Your task to perform on an android device: Turn on the flashlight Image 0: 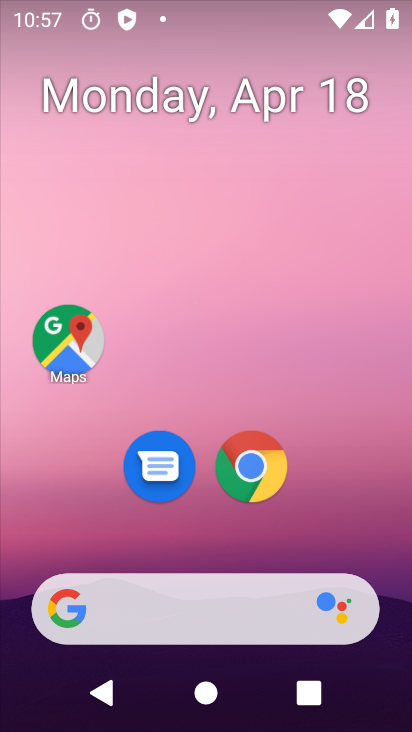
Step 0: drag from (296, 588) to (361, 92)
Your task to perform on an android device: Turn on the flashlight Image 1: 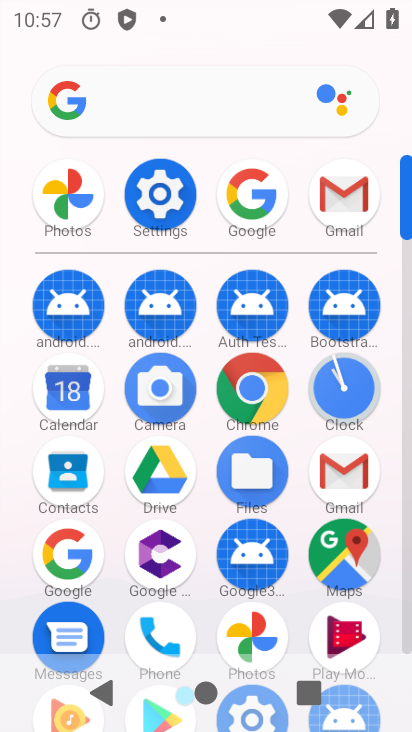
Step 1: task complete